Your task to perform on an android device: Open battery settings Image 0: 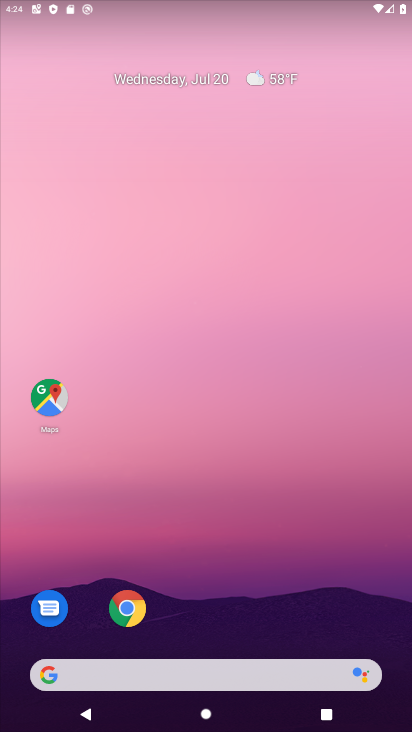
Step 0: drag from (225, 661) to (140, 42)
Your task to perform on an android device: Open battery settings Image 1: 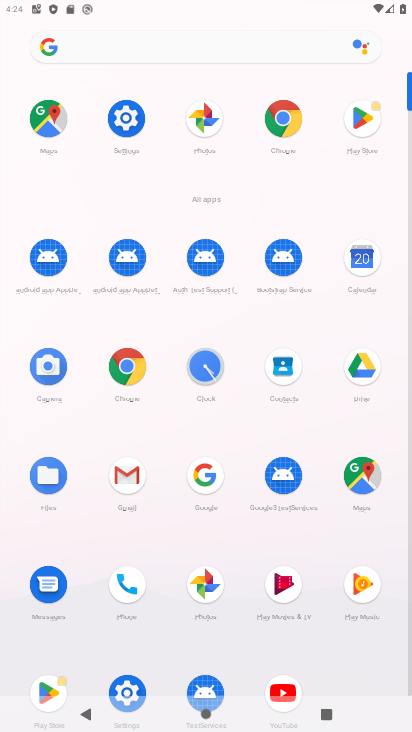
Step 1: click (138, 119)
Your task to perform on an android device: Open battery settings Image 2: 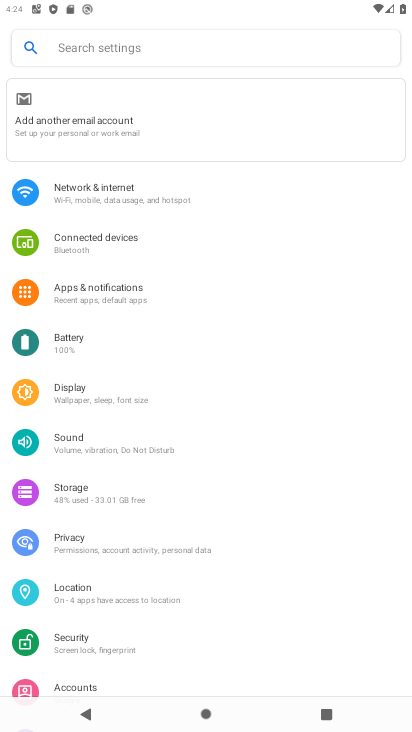
Step 2: click (97, 333)
Your task to perform on an android device: Open battery settings Image 3: 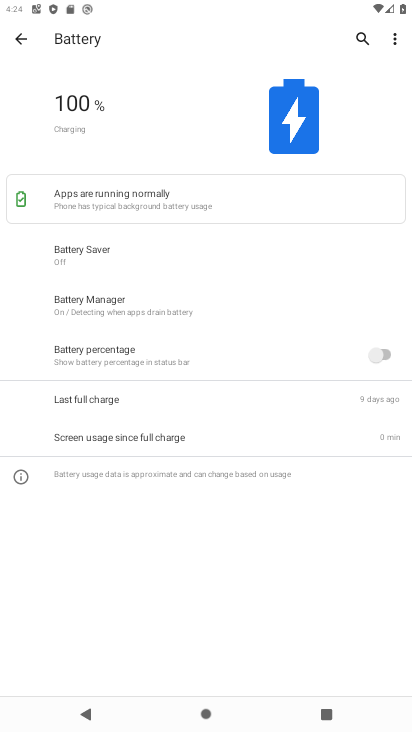
Step 3: task complete